Your task to perform on an android device: turn smart compose on in the gmail app Image 0: 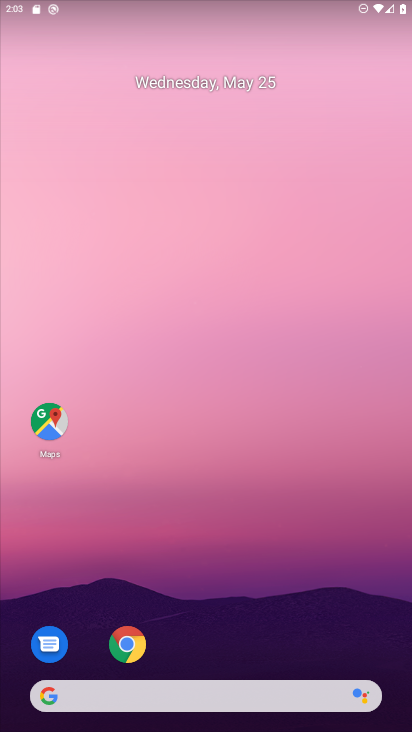
Step 0: drag from (284, 641) to (219, 101)
Your task to perform on an android device: turn smart compose on in the gmail app Image 1: 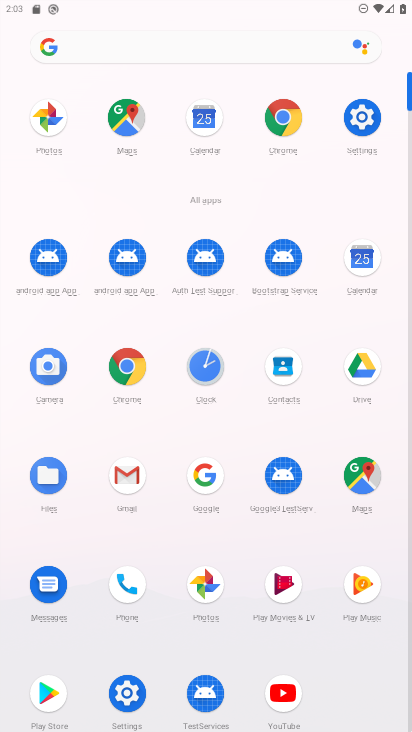
Step 1: click (133, 471)
Your task to perform on an android device: turn smart compose on in the gmail app Image 2: 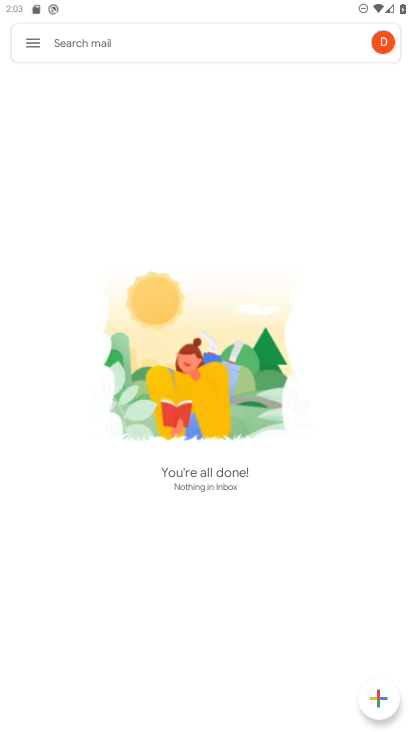
Step 2: click (34, 44)
Your task to perform on an android device: turn smart compose on in the gmail app Image 3: 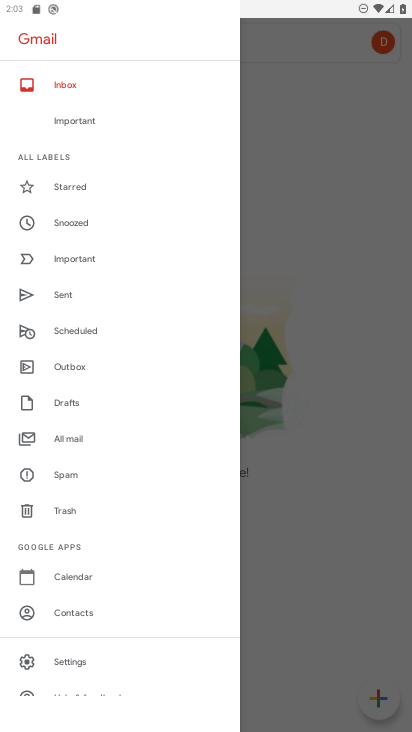
Step 3: click (116, 658)
Your task to perform on an android device: turn smart compose on in the gmail app Image 4: 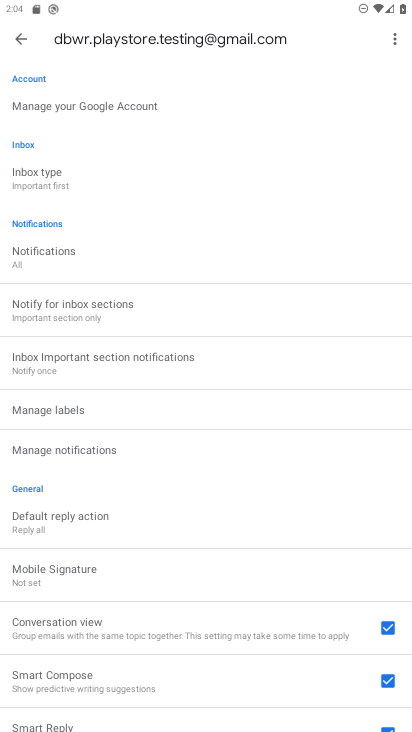
Step 4: task complete